Your task to perform on an android device: find snoozed emails in the gmail app Image 0: 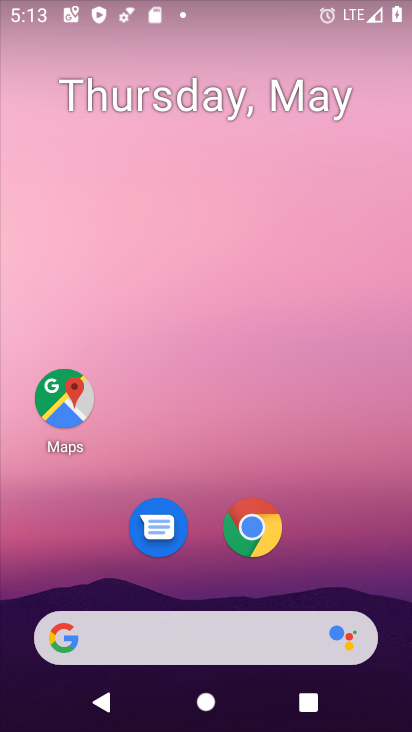
Step 0: drag from (346, 531) to (275, 31)
Your task to perform on an android device: find snoozed emails in the gmail app Image 1: 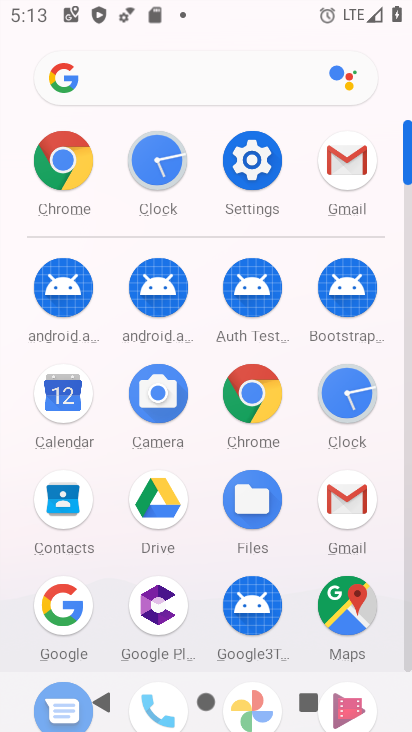
Step 1: click (322, 168)
Your task to perform on an android device: find snoozed emails in the gmail app Image 2: 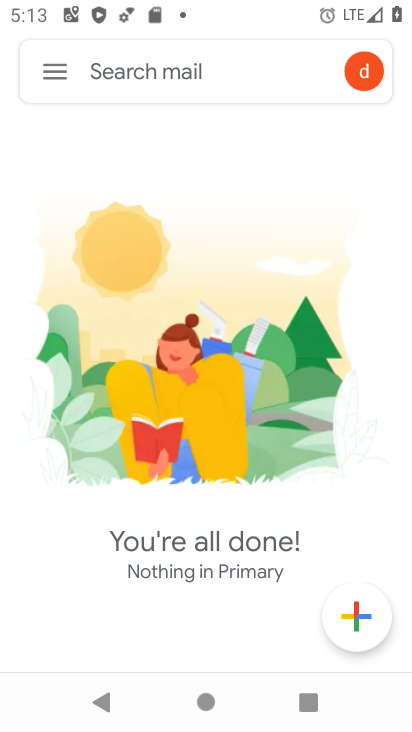
Step 2: click (52, 83)
Your task to perform on an android device: find snoozed emails in the gmail app Image 3: 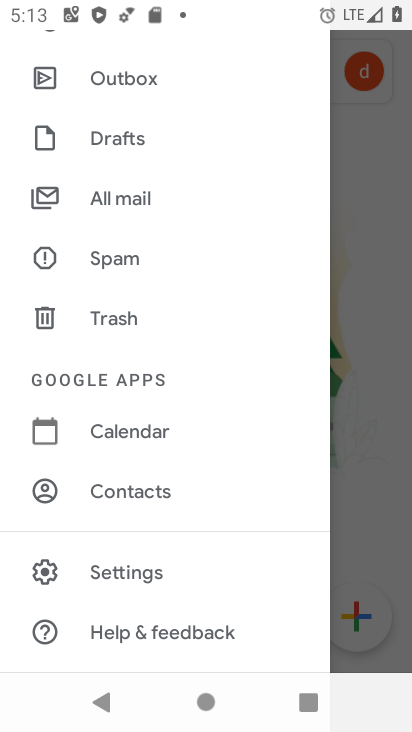
Step 3: drag from (160, 171) to (180, 480)
Your task to perform on an android device: find snoozed emails in the gmail app Image 4: 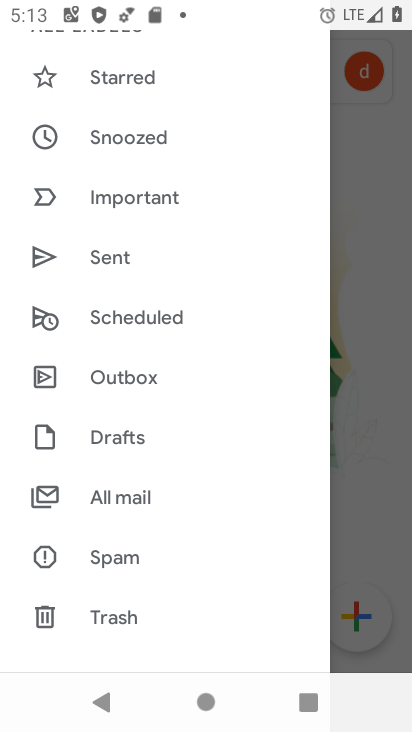
Step 4: click (116, 151)
Your task to perform on an android device: find snoozed emails in the gmail app Image 5: 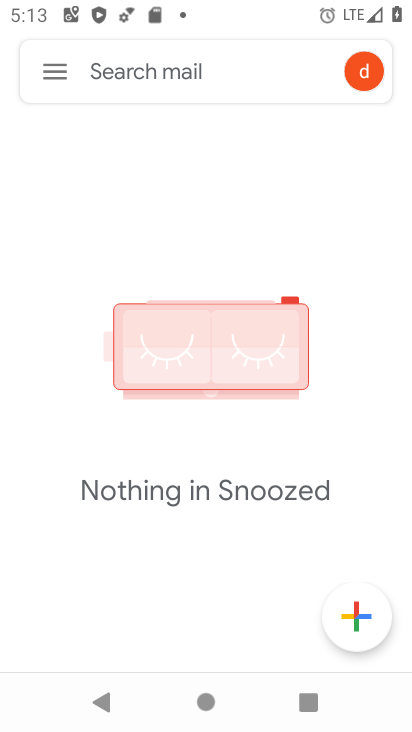
Step 5: task complete